Your task to perform on an android device: turn pop-ups off in chrome Image 0: 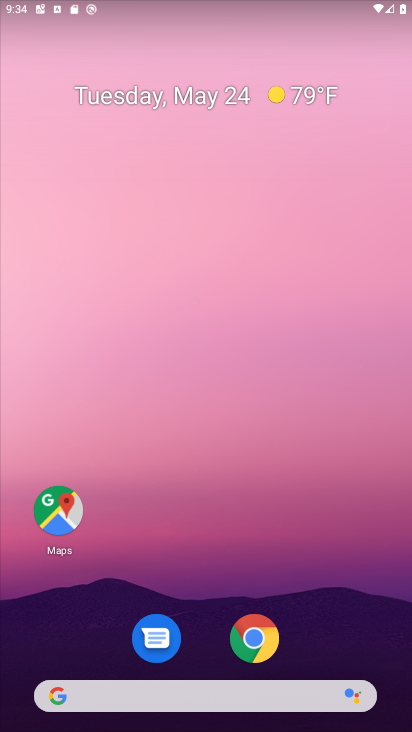
Step 0: click (269, 641)
Your task to perform on an android device: turn pop-ups off in chrome Image 1: 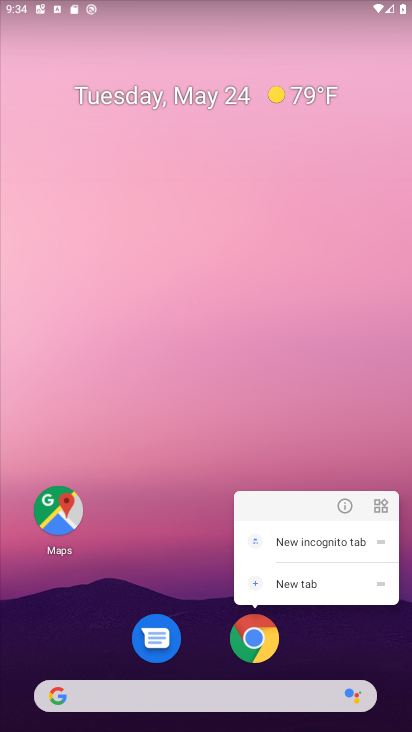
Step 1: click (268, 641)
Your task to perform on an android device: turn pop-ups off in chrome Image 2: 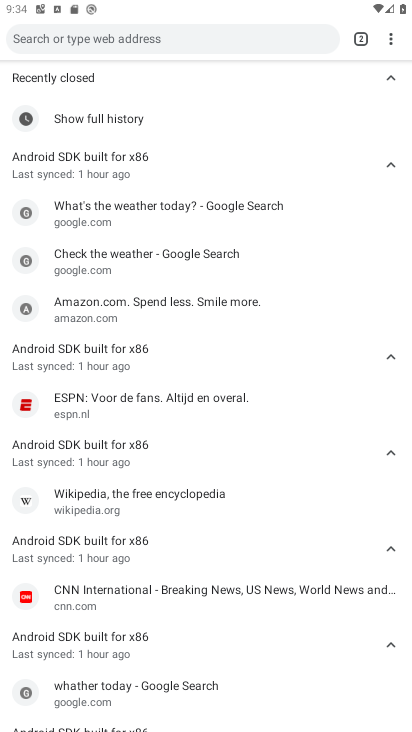
Step 2: click (392, 43)
Your task to perform on an android device: turn pop-ups off in chrome Image 3: 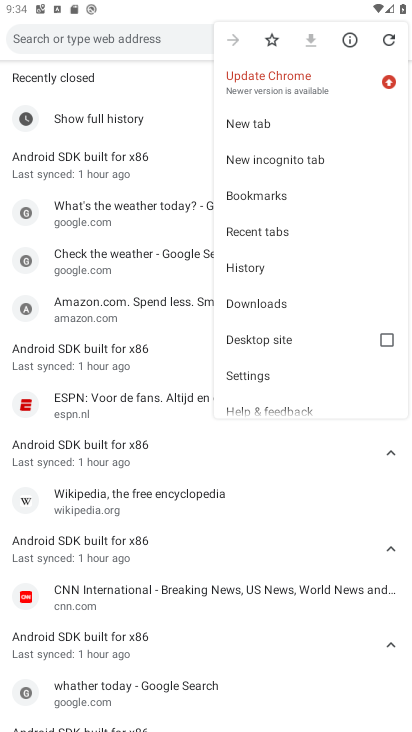
Step 3: click (269, 378)
Your task to perform on an android device: turn pop-ups off in chrome Image 4: 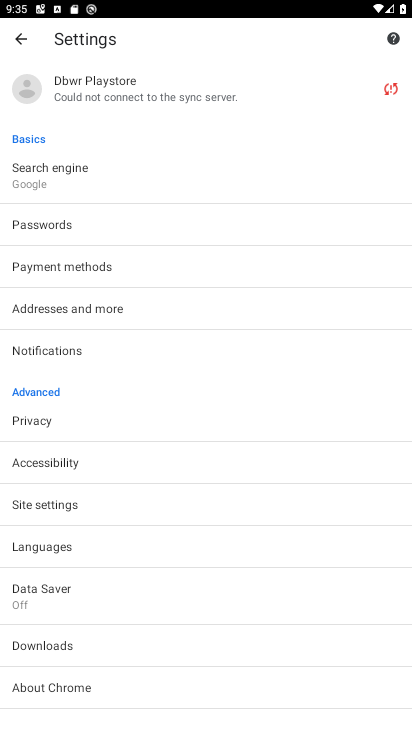
Step 4: click (84, 503)
Your task to perform on an android device: turn pop-ups off in chrome Image 5: 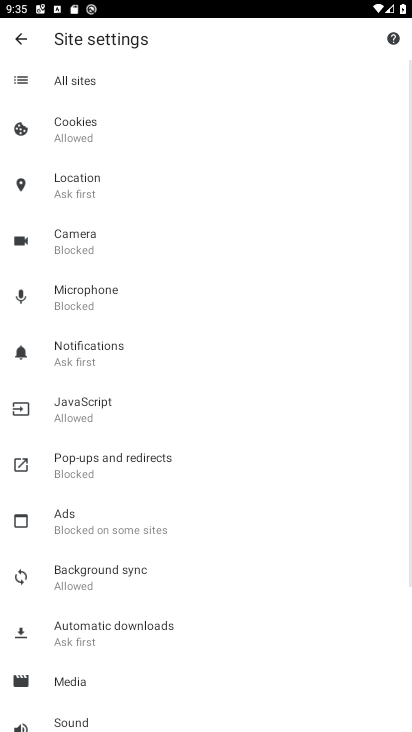
Step 5: click (139, 463)
Your task to perform on an android device: turn pop-ups off in chrome Image 6: 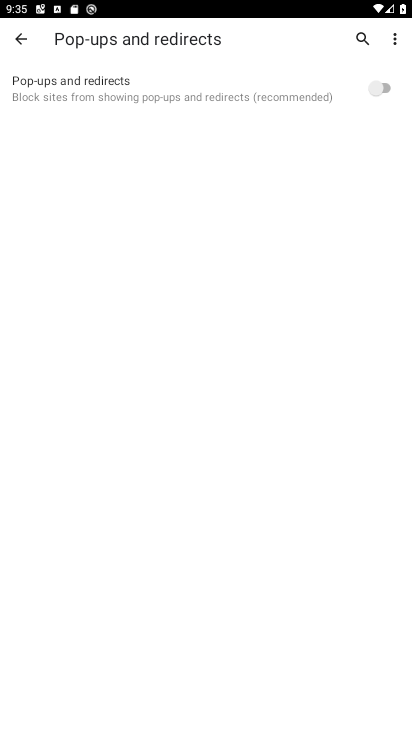
Step 6: task complete